Your task to perform on an android device: see creations saved in the google photos Image 0: 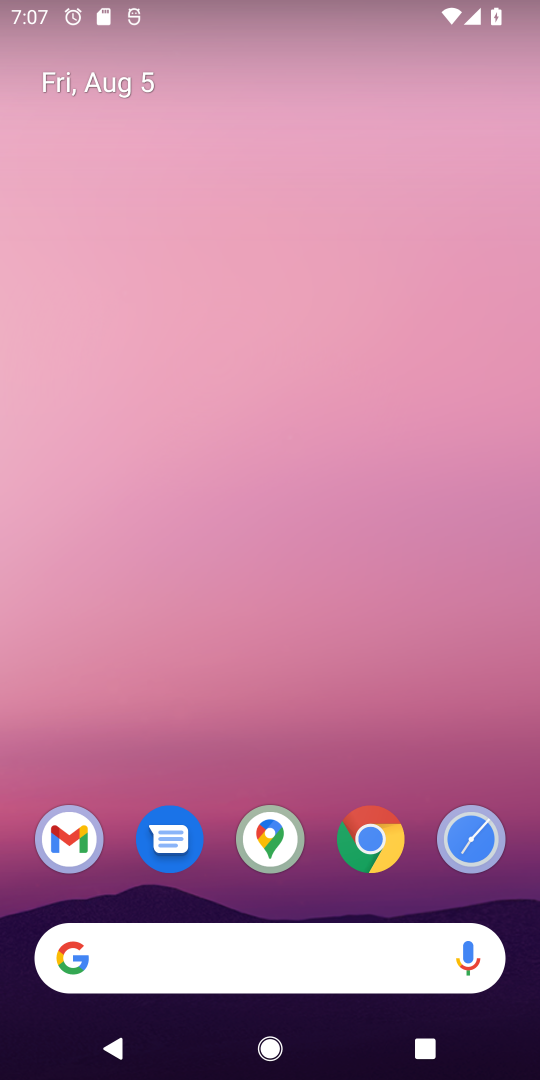
Step 0: drag from (222, 774) to (225, 221)
Your task to perform on an android device: see creations saved in the google photos Image 1: 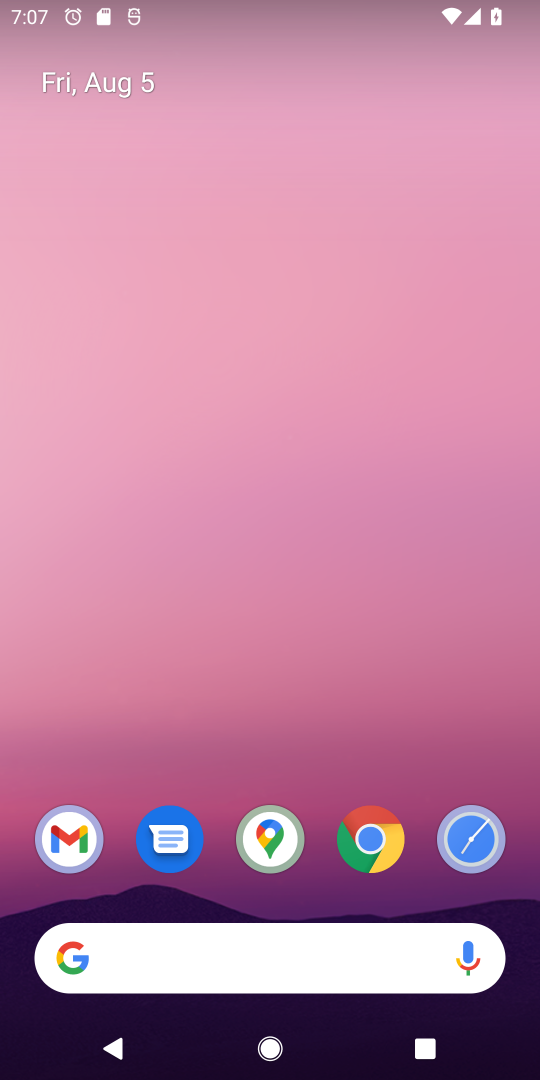
Step 1: drag from (243, 774) to (236, 118)
Your task to perform on an android device: see creations saved in the google photos Image 2: 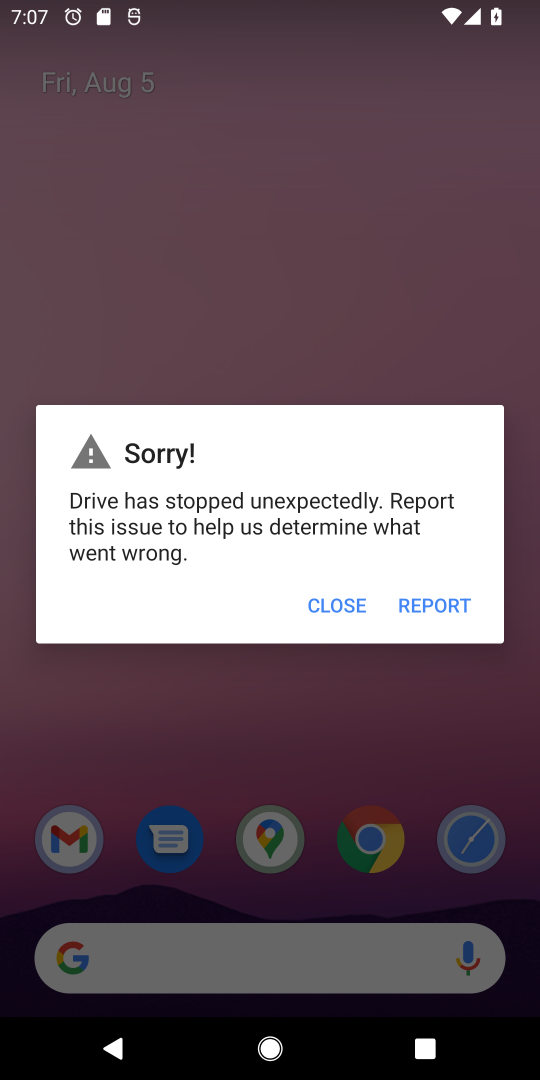
Step 2: press home button
Your task to perform on an android device: see creations saved in the google photos Image 3: 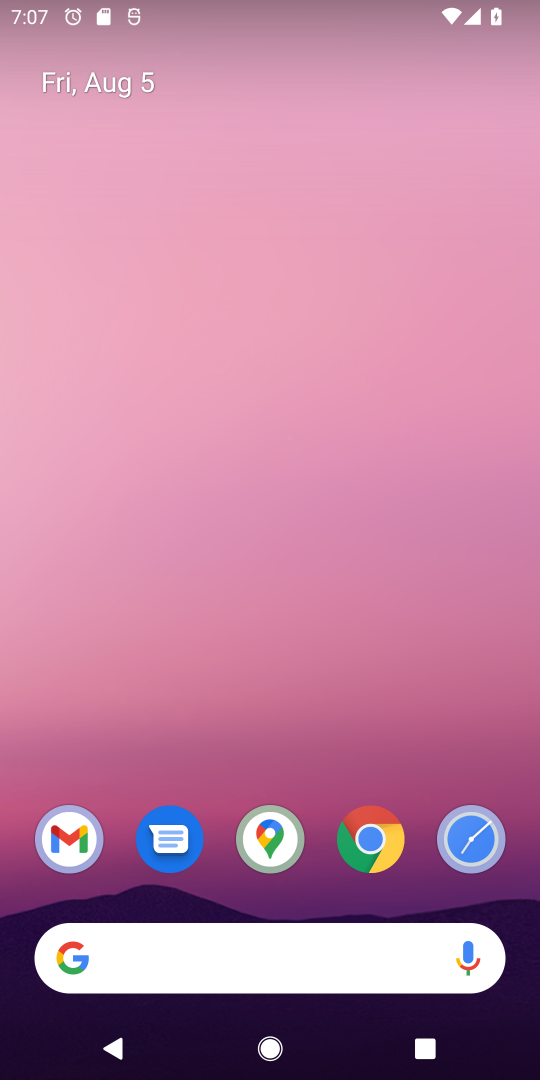
Step 3: drag from (226, 754) to (253, 187)
Your task to perform on an android device: see creations saved in the google photos Image 4: 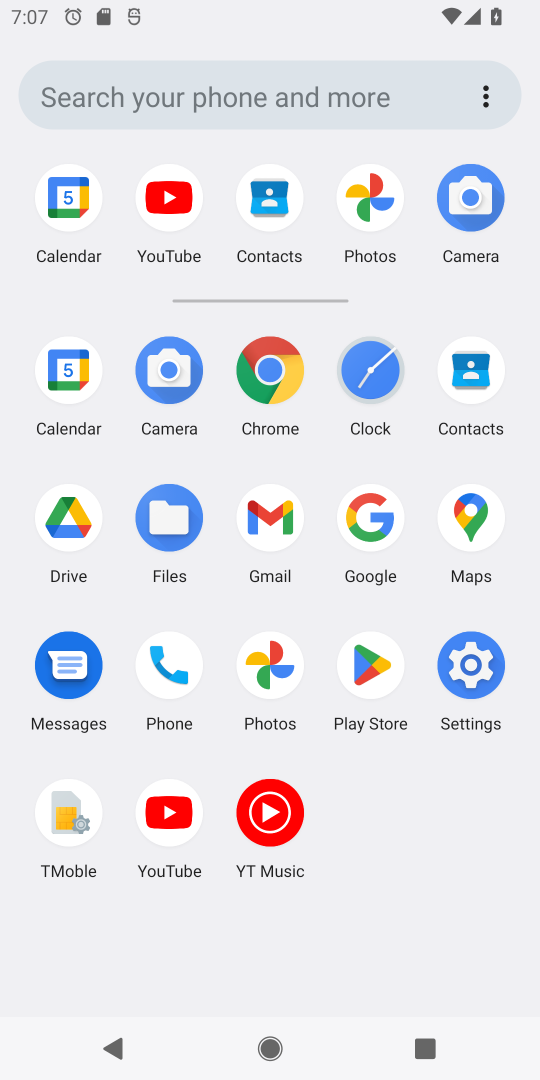
Step 4: click (277, 673)
Your task to perform on an android device: see creations saved in the google photos Image 5: 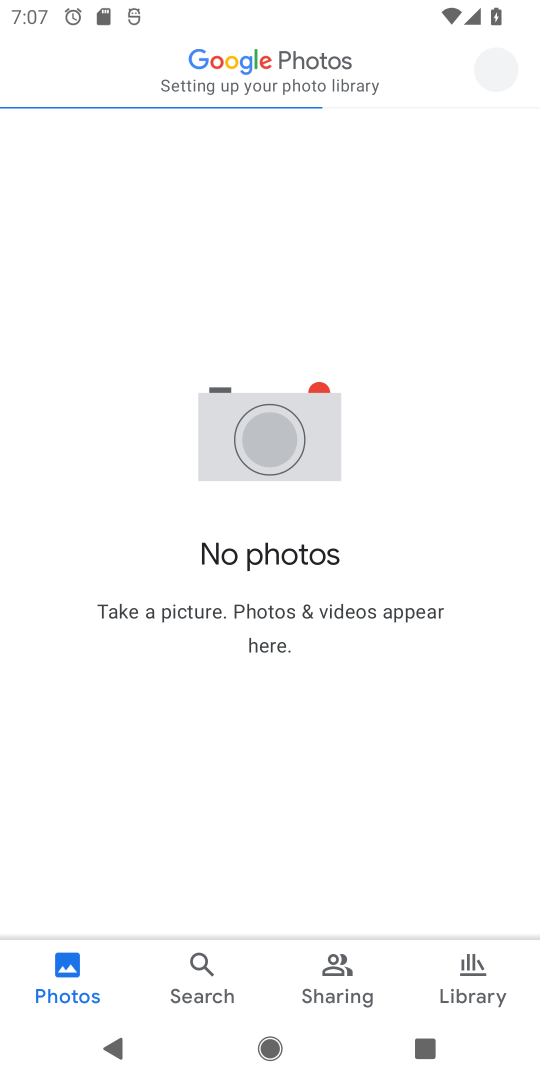
Step 5: click (55, 981)
Your task to perform on an android device: see creations saved in the google photos Image 6: 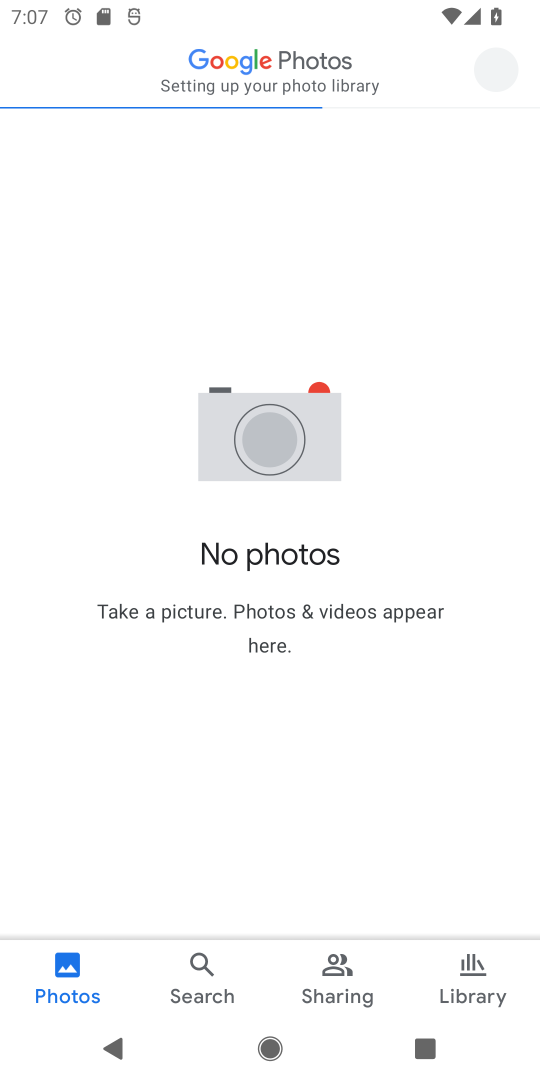
Step 6: task complete